Your task to perform on an android device: Go to ESPN.com Image 0: 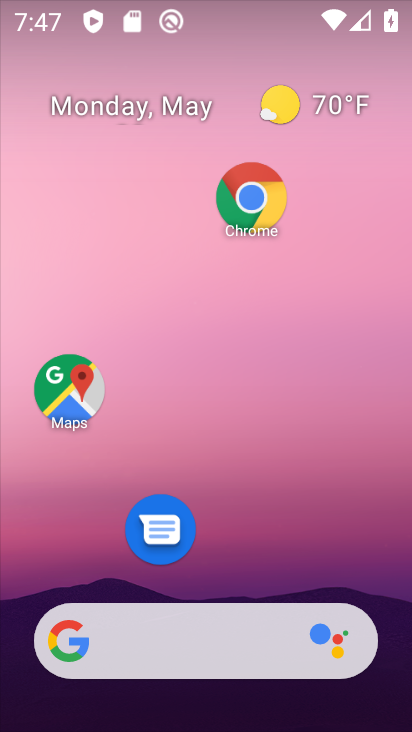
Step 0: press home button
Your task to perform on an android device: Go to ESPN.com Image 1: 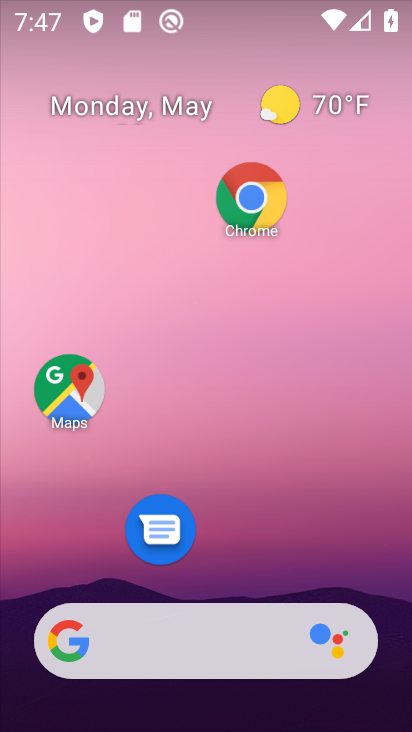
Step 1: click (238, 195)
Your task to perform on an android device: Go to ESPN.com Image 2: 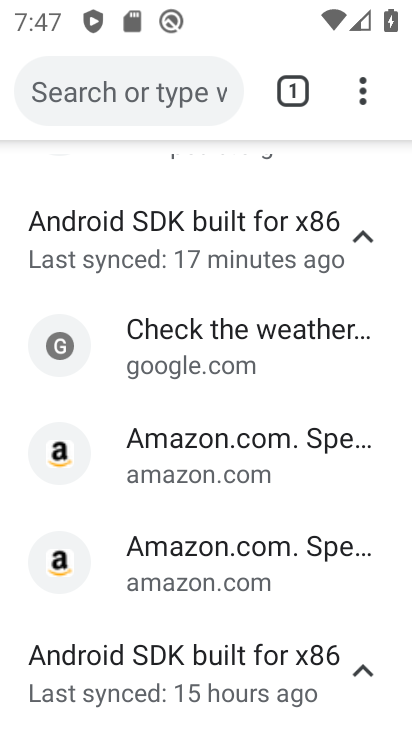
Step 2: click (288, 89)
Your task to perform on an android device: Go to ESPN.com Image 3: 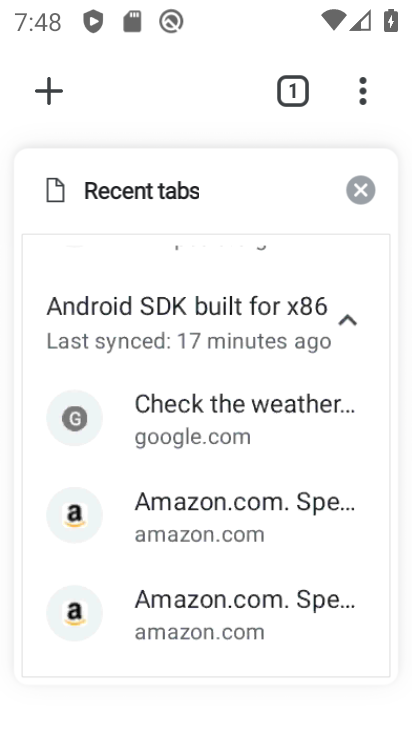
Step 3: click (358, 189)
Your task to perform on an android device: Go to ESPN.com Image 4: 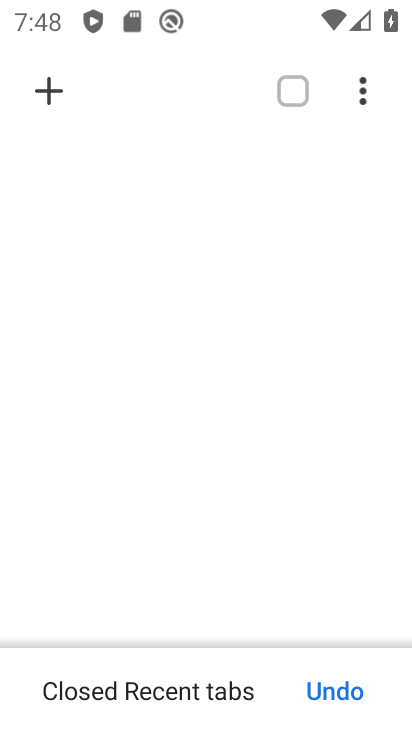
Step 4: click (56, 85)
Your task to perform on an android device: Go to ESPN.com Image 5: 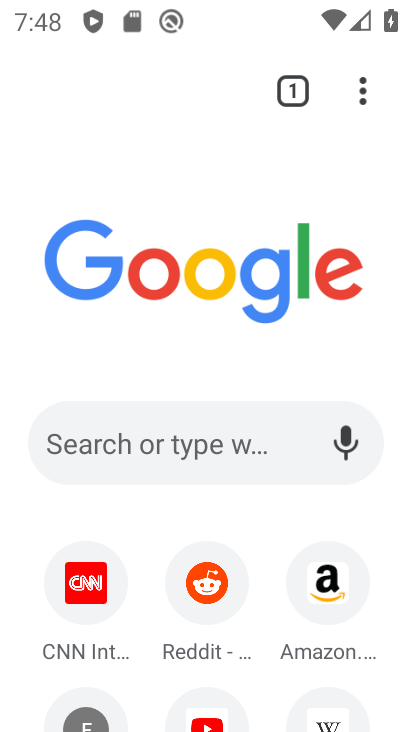
Step 5: drag from (144, 539) to (164, 229)
Your task to perform on an android device: Go to ESPN.com Image 6: 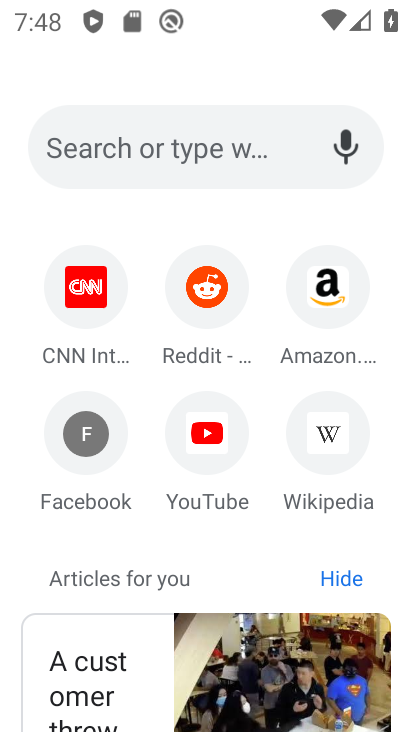
Step 6: click (128, 150)
Your task to perform on an android device: Go to ESPN.com Image 7: 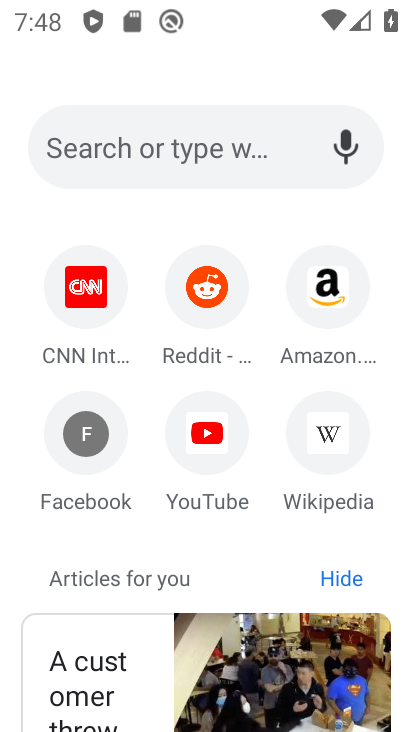
Step 7: click (117, 146)
Your task to perform on an android device: Go to ESPN.com Image 8: 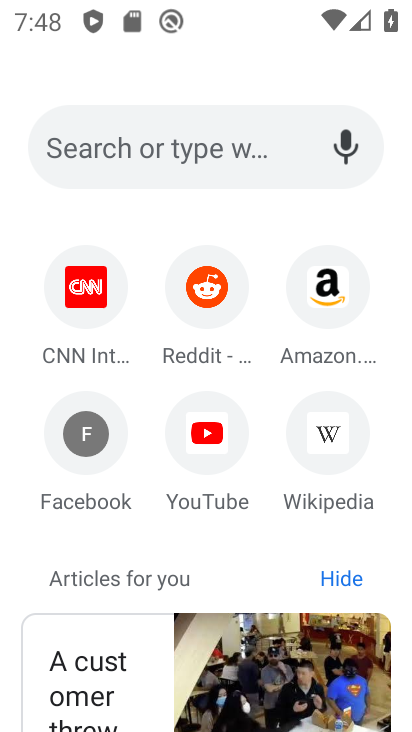
Step 8: drag from (150, 224) to (122, 665)
Your task to perform on an android device: Go to ESPN.com Image 9: 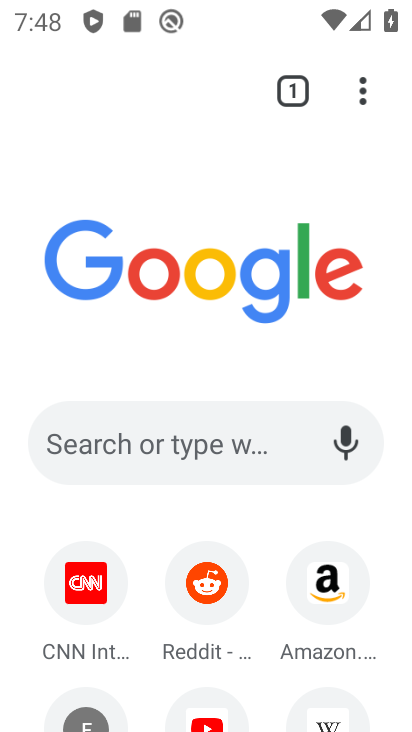
Step 9: click (121, 433)
Your task to perform on an android device: Go to ESPN.com Image 10: 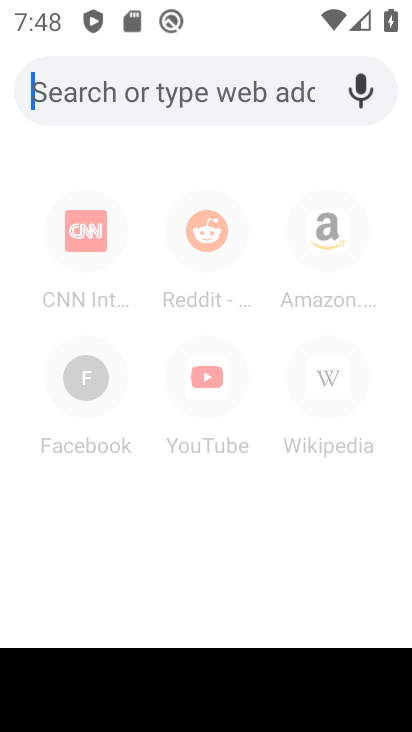
Step 10: type "espn"
Your task to perform on an android device: Go to ESPN.com Image 11: 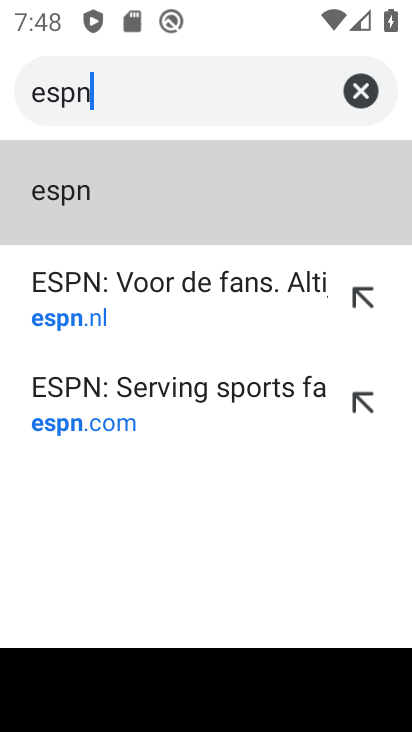
Step 11: click (161, 413)
Your task to perform on an android device: Go to ESPN.com Image 12: 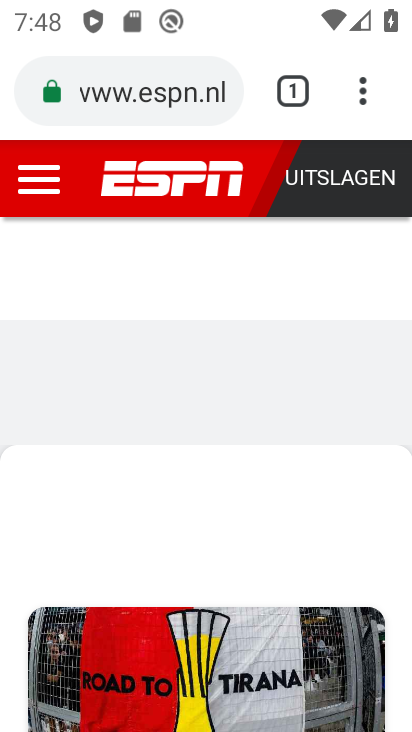
Step 12: drag from (209, 574) to (184, 235)
Your task to perform on an android device: Go to ESPN.com Image 13: 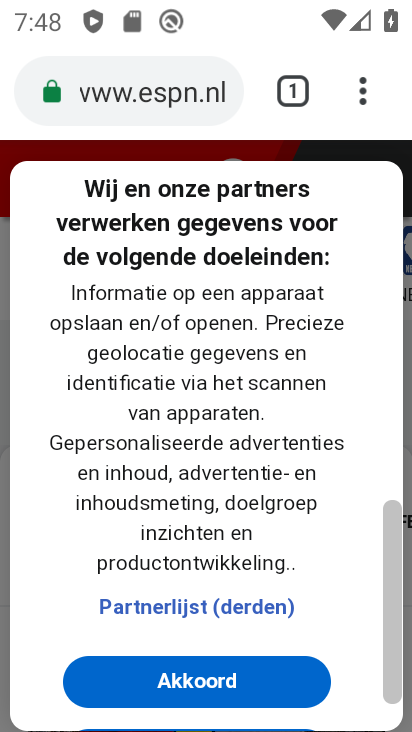
Step 13: click (200, 679)
Your task to perform on an android device: Go to ESPN.com Image 14: 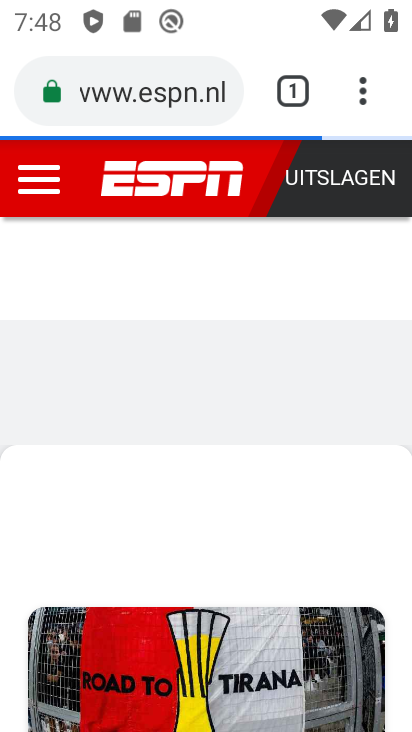
Step 14: task complete